Your task to perform on an android device: read, delete, or share a saved page in the chrome app Image 0: 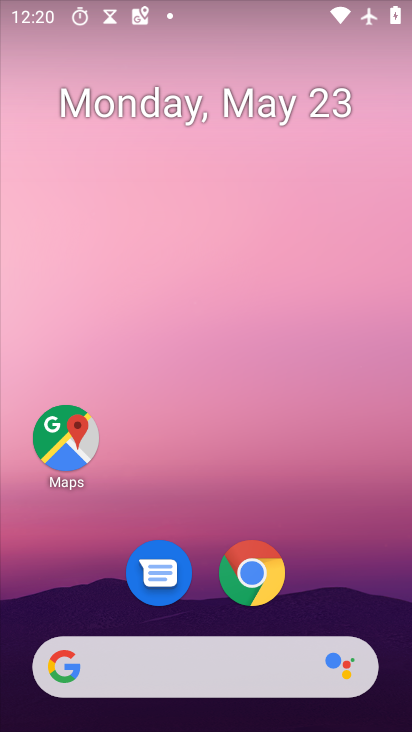
Step 0: press home button
Your task to perform on an android device: read, delete, or share a saved page in the chrome app Image 1: 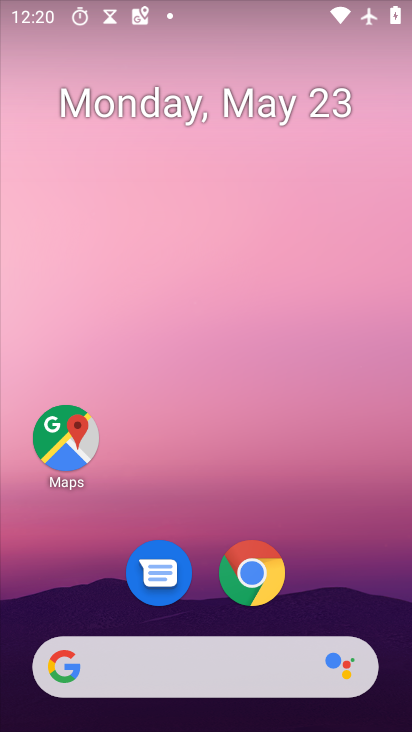
Step 1: click (249, 563)
Your task to perform on an android device: read, delete, or share a saved page in the chrome app Image 2: 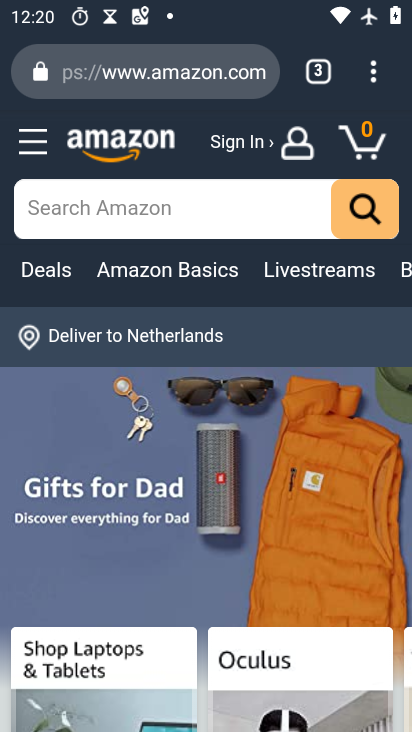
Step 2: drag from (379, 69) to (219, 469)
Your task to perform on an android device: read, delete, or share a saved page in the chrome app Image 3: 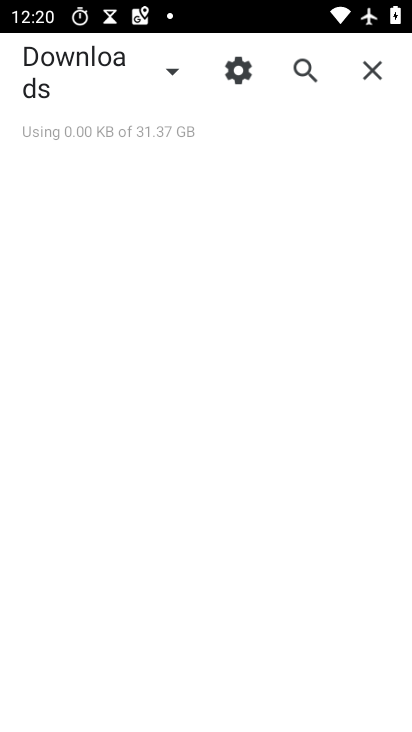
Step 3: click (148, 64)
Your task to perform on an android device: read, delete, or share a saved page in the chrome app Image 4: 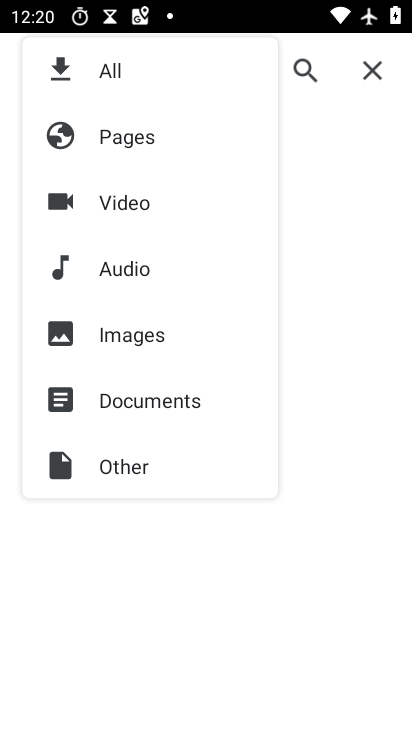
Step 4: click (148, 138)
Your task to perform on an android device: read, delete, or share a saved page in the chrome app Image 5: 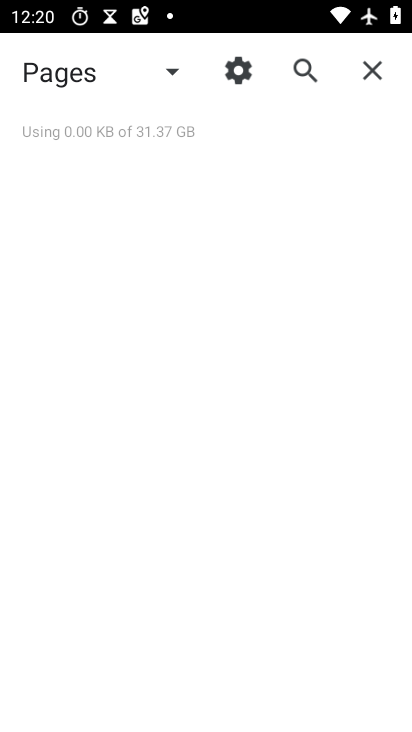
Step 5: task complete